Your task to perform on an android device: change keyboard looks Image 0: 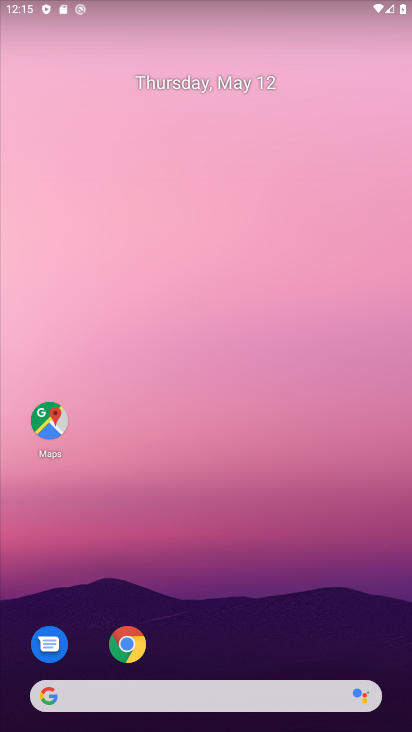
Step 0: drag from (244, 604) to (196, 120)
Your task to perform on an android device: change keyboard looks Image 1: 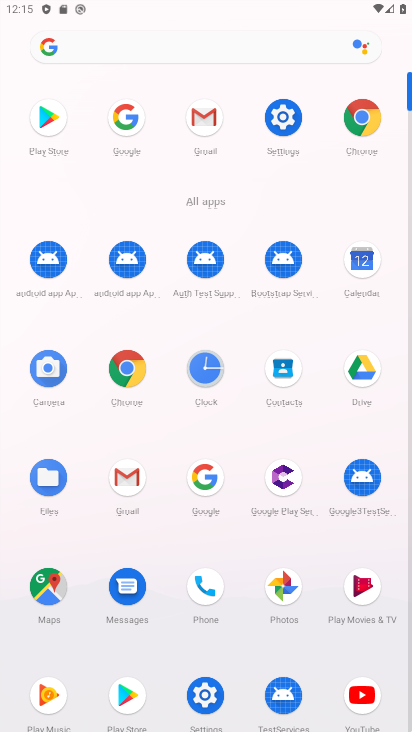
Step 1: click (276, 109)
Your task to perform on an android device: change keyboard looks Image 2: 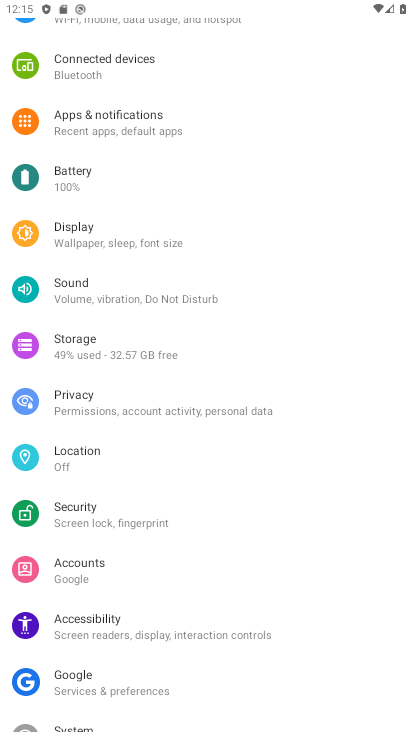
Step 2: drag from (207, 674) to (190, 305)
Your task to perform on an android device: change keyboard looks Image 3: 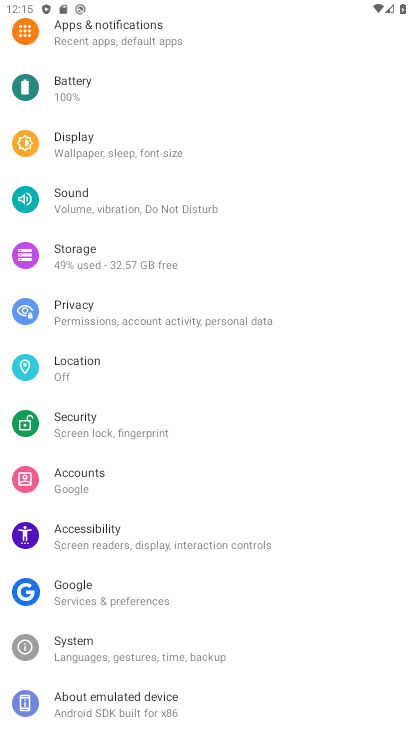
Step 3: click (109, 647)
Your task to perform on an android device: change keyboard looks Image 4: 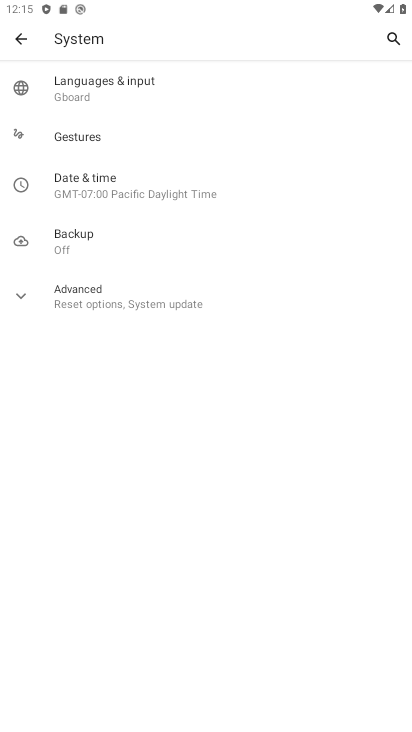
Step 4: click (150, 102)
Your task to perform on an android device: change keyboard looks Image 5: 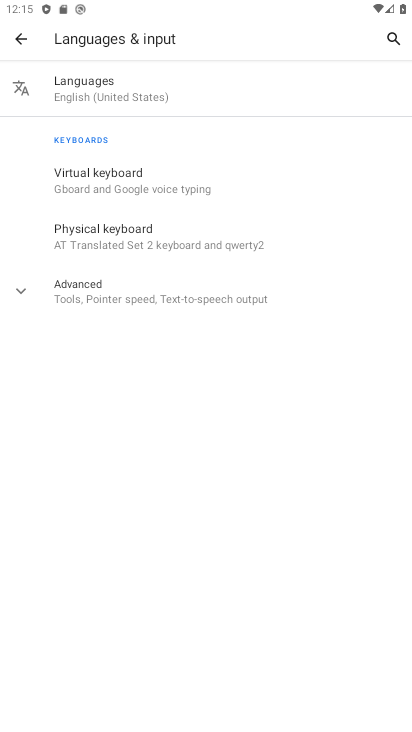
Step 5: click (135, 179)
Your task to perform on an android device: change keyboard looks Image 6: 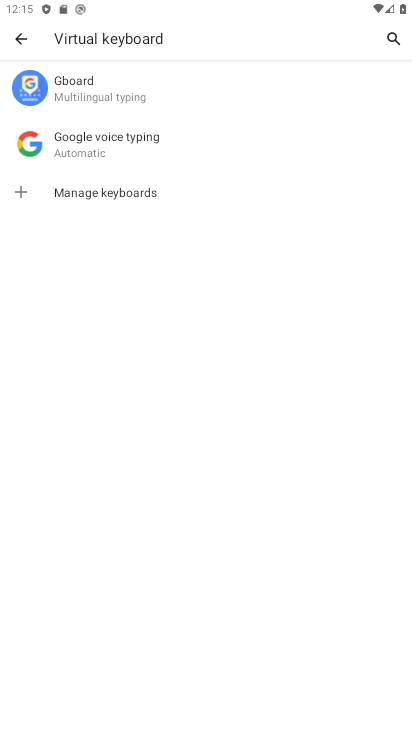
Step 6: click (102, 92)
Your task to perform on an android device: change keyboard looks Image 7: 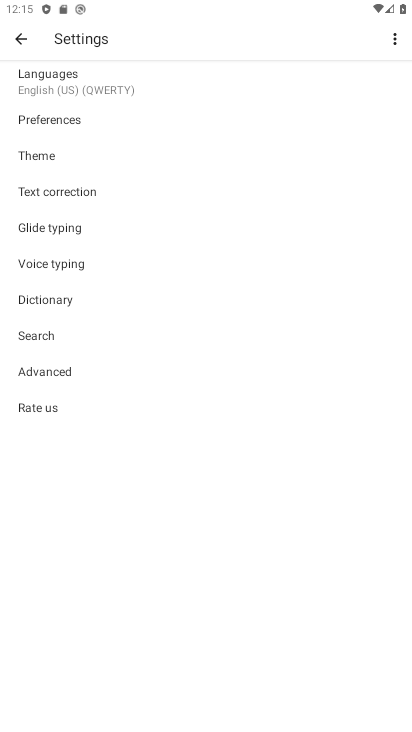
Step 7: click (73, 159)
Your task to perform on an android device: change keyboard looks Image 8: 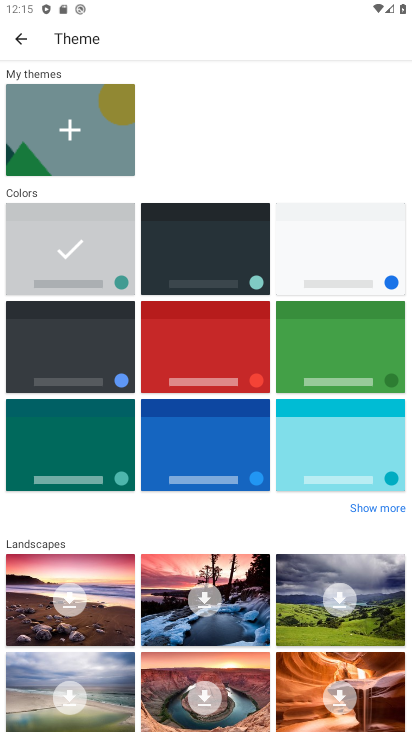
Step 8: click (211, 348)
Your task to perform on an android device: change keyboard looks Image 9: 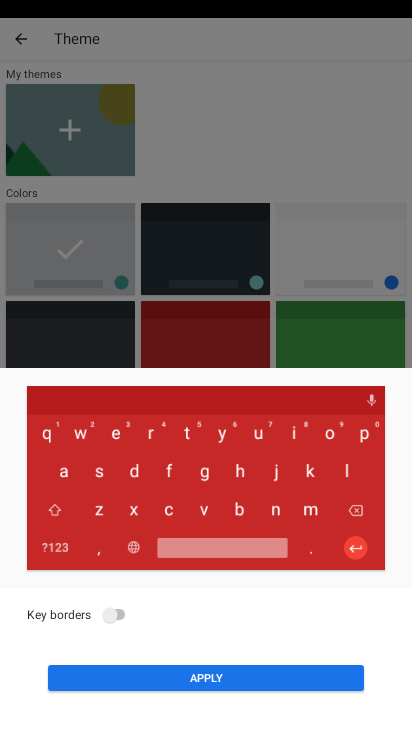
Step 9: click (211, 671)
Your task to perform on an android device: change keyboard looks Image 10: 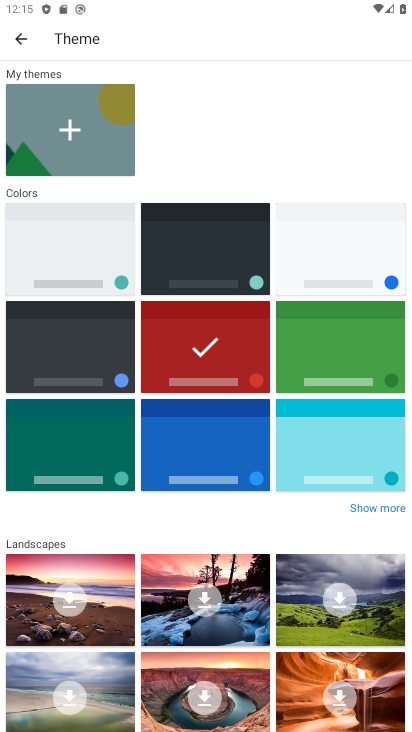
Step 10: task complete